Your task to perform on an android device: toggle airplane mode Image 0: 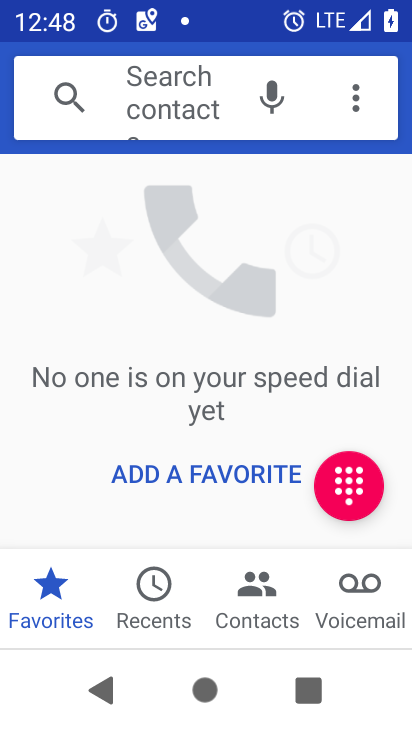
Step 0: press home button
Your task to perform on an android device: toggle airplane mode Image 1: 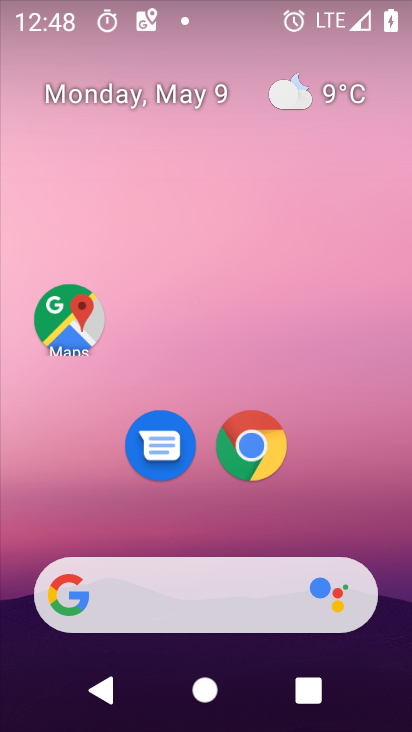
Step 1: drag from (305, 484) to (260, 19)
Your task to perform on an android device: toggle airplane mode Image 2: 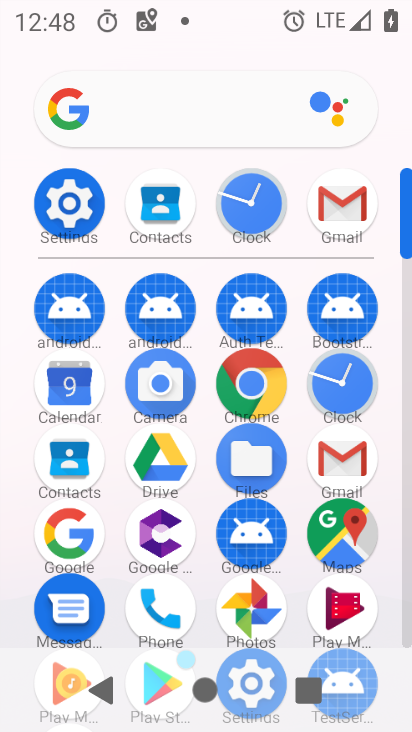
Step 2: click (65, 203)
Your task to perform on an android device: toggle airplane mode Image 3: 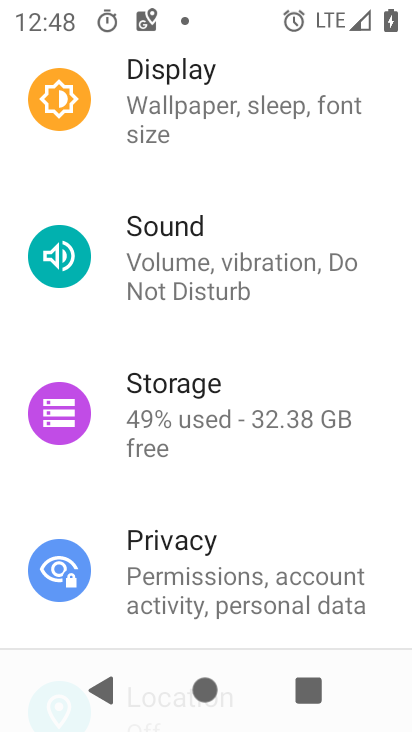
Step 3: drag from (247, 208) to (248, 577)
Your task to perform on an android device: toggle airplane mode Image 4: 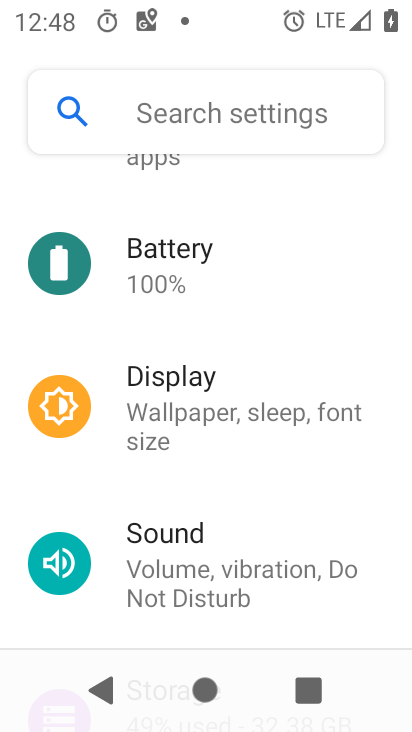
Step 4: drag from (313, 235) to (295, 534)
Your task to perform on an android device: toggle airplane mode Image 5: 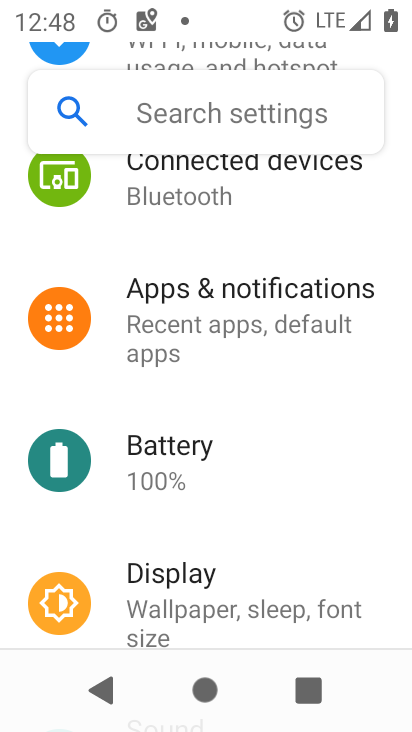
Step 5: drag from (384, 199) to (343, 604)
Your task to perform on an android device: toggle airplane mode Image 6: 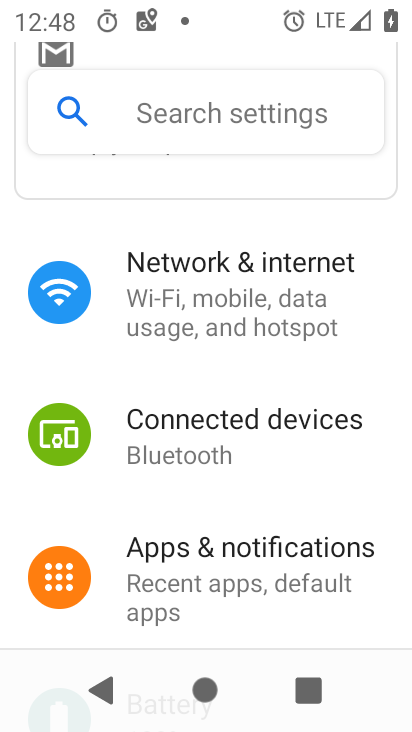
Step 6: click (213, 308)
Your task to perform on an android device: toggle airplane mode Image 7: 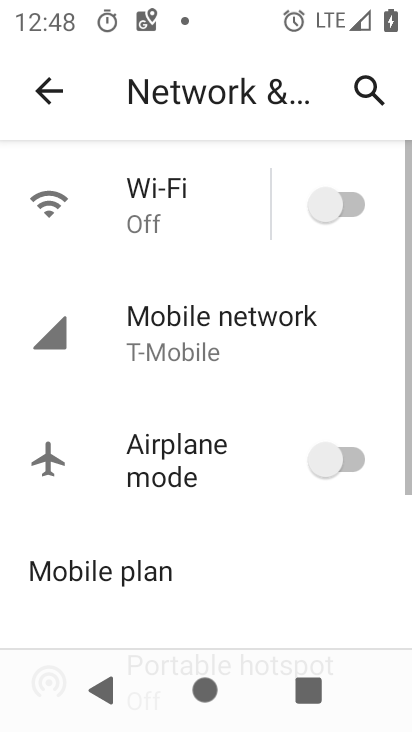
Step 7: click (324, 458)
Your task to perform on an android device: toggle airplane mode Image 8: 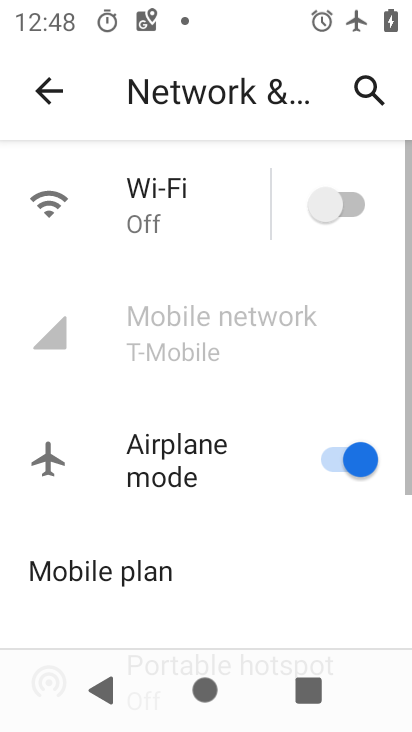
Step 8: task complete